Your task to perform on an android device: Open eBay Image 0: 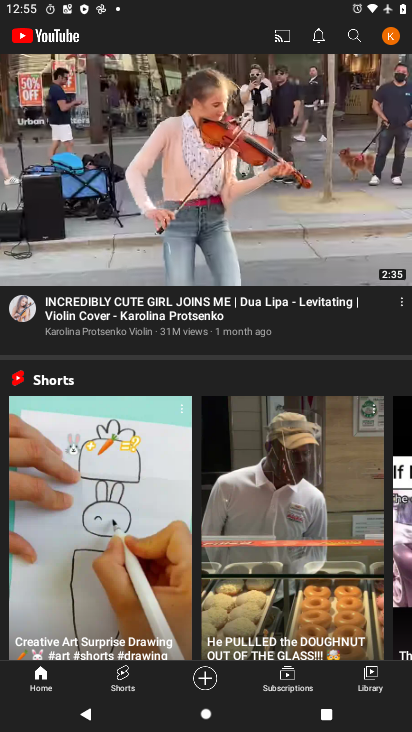
Step 0: press home button
Your task to perform on an android device: Open eBay Image 1: 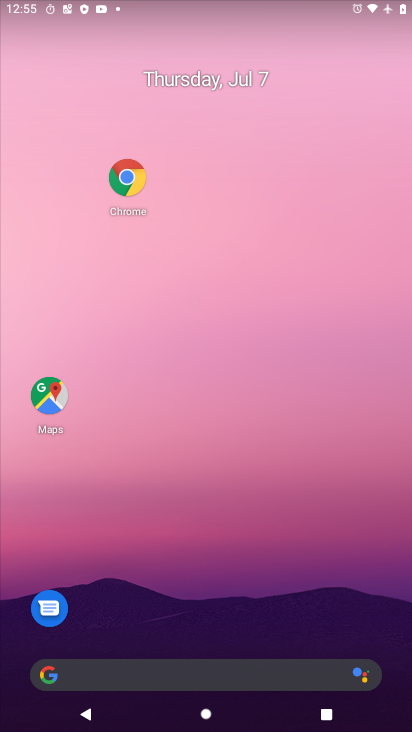
Step 1: drag from (218, 661) to (244, 56)
Your task to perform on an android device: Open eBay Image 2: 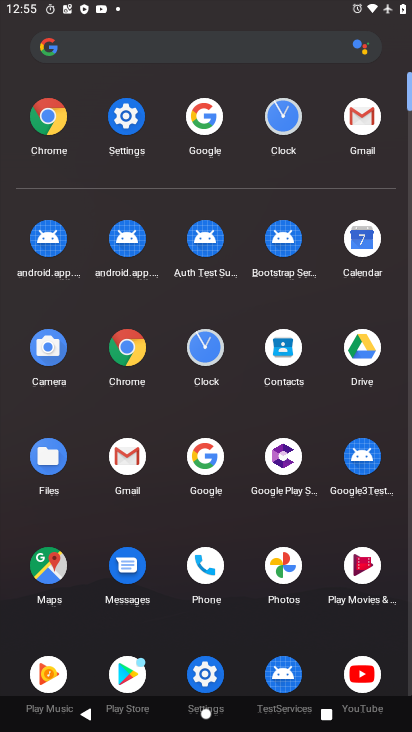
Step 2: click (55, 117)
Your task to perform on an android device: Open eBay Image 3: 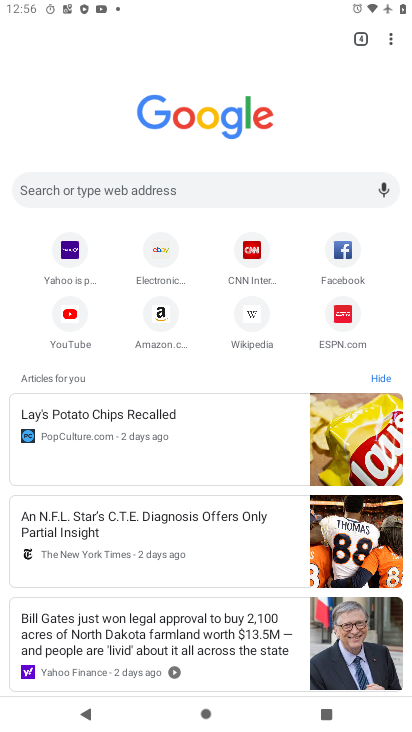
Step 3: click (168, 251)
Your task to perform on an android device: Open eBay Image 4: 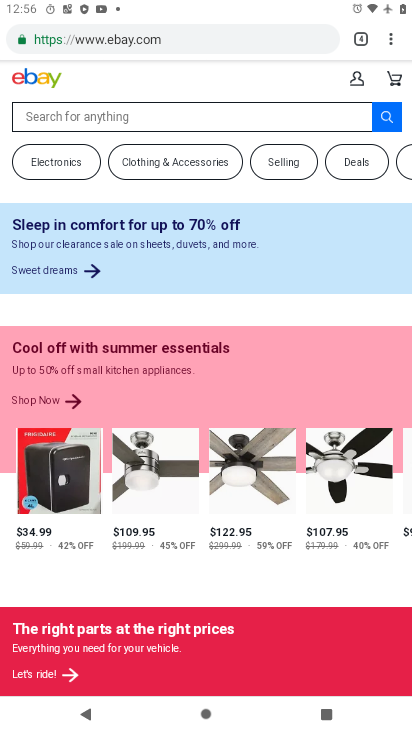
Step 4: task complete